Your task to perform on an android device: Turn on the flashlight Image 0: 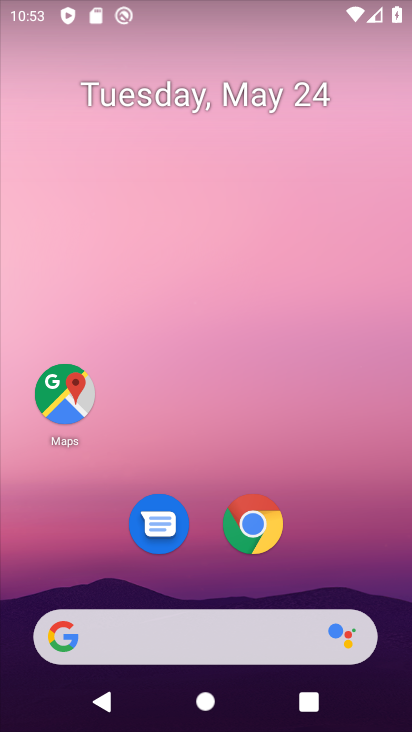
Step 0: drag from (211, 416) to (228, 37)
Your task to perform on an android device: Turn on the flashlight Image 1: 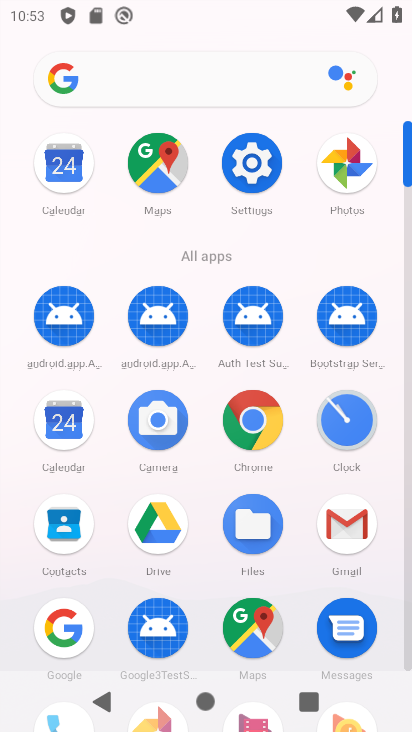
Step 1: click (242, 170)
Your task to perform on an android device: Turn on the flashlight Image 2: 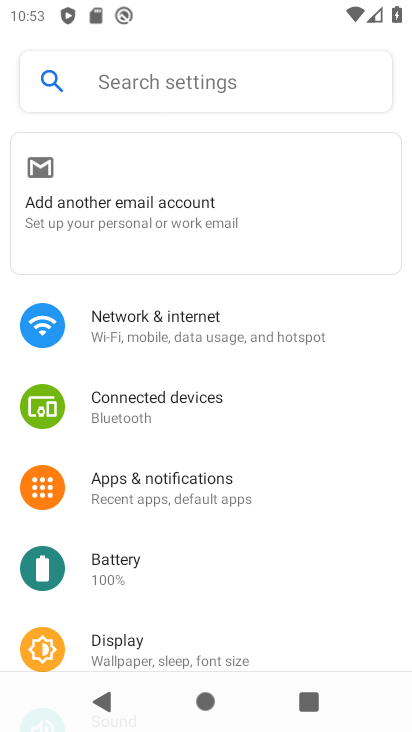
Step 2: click (257, 76)
Your task to perform on an android device: Turn on the flashlight Image 3: 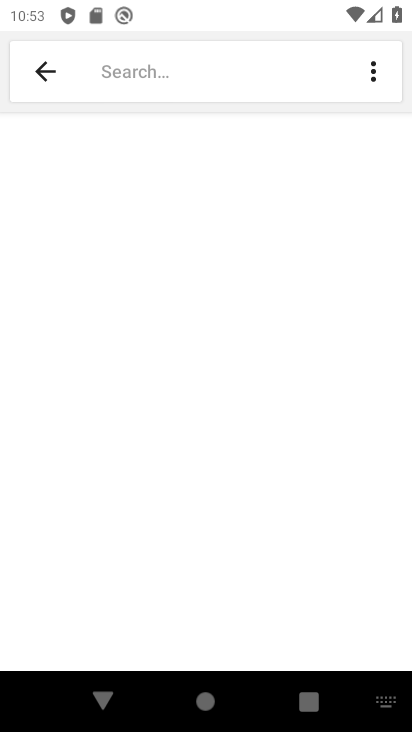
Step 3: type "Flashlight"
Your task to perform on an android device: Turn on the flashlight Image 4: 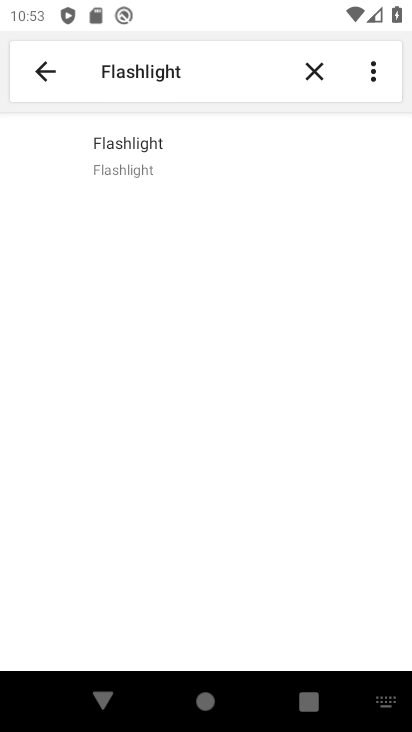
Step 4: click (129, 142)
Your task to perform on an android device: Turn on the flashlight Image 5: 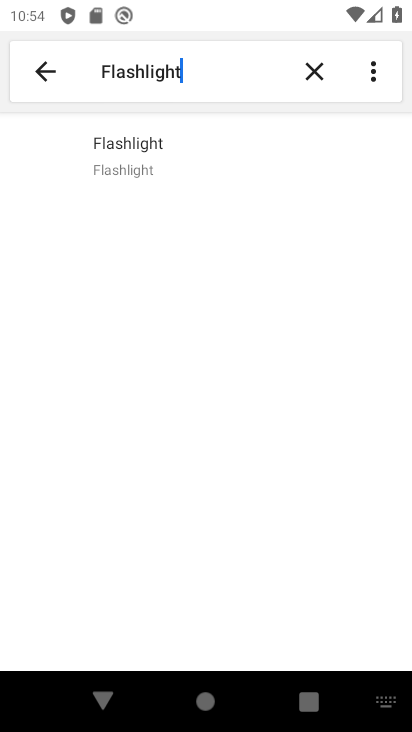
Step 5: task complete